Your task to perform on an android device: Open Google Chrome and click the shortcut for Amazon.com Image 0: 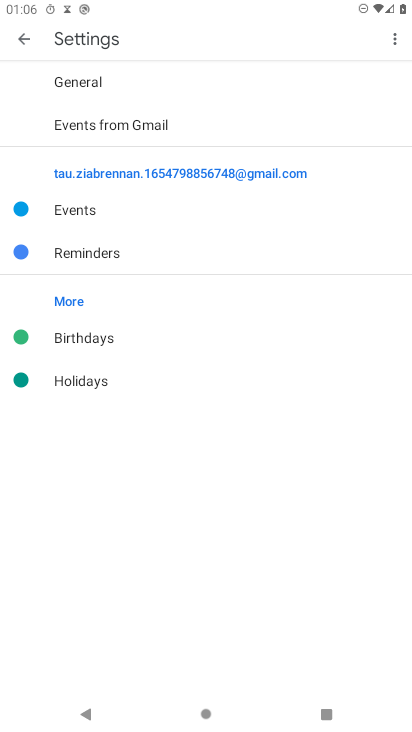
Step 0: press home button
Your task to perform on an android device: Open Google Chrome and click the shortcut for Amazon.com Image 1: 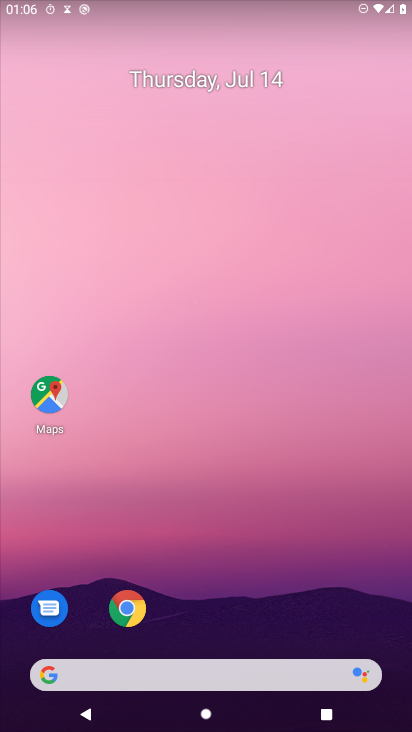
Step 1: click (120, 612)
Your task to perform on an android device: Open Google Chrome and click the shortcut for Amazon.com Image 2: 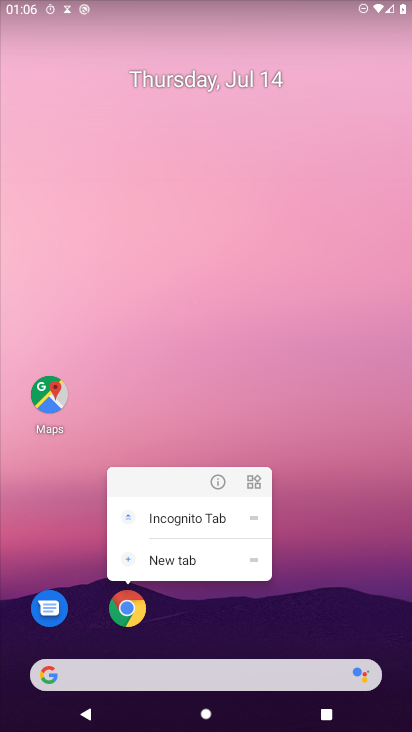
Step 2: click (120, 612)
Your task to perform on an android device: Open Google Chrome and click the shortcut for Amazon.com Image 3: 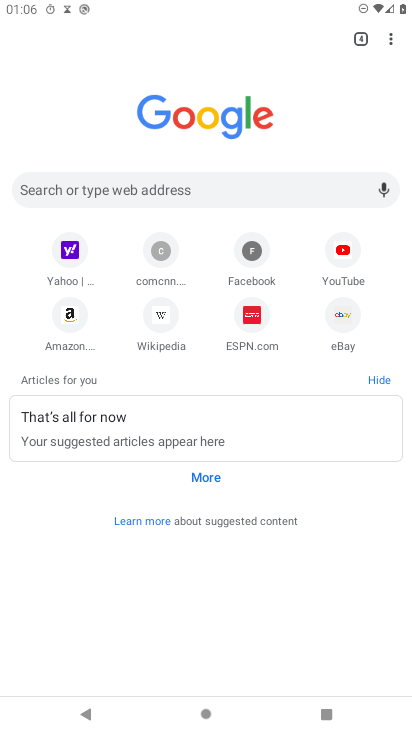
Step 3: click (67, 309)
Your task to perform on an android device: Open Google Chrome and click the shortcut for Amazon.com Image 4: 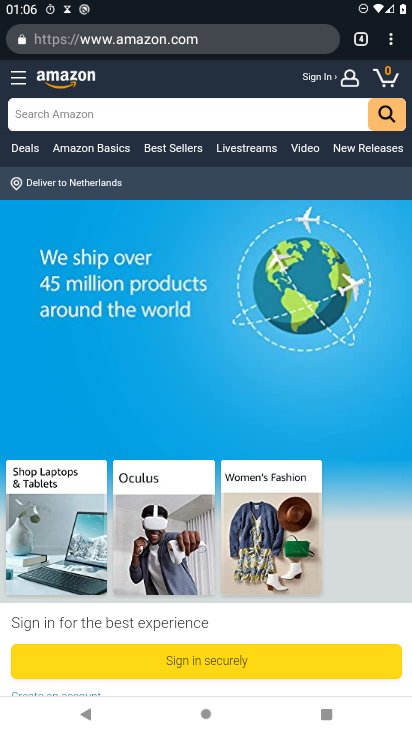
Step 4: task complete